Your task to perform on an android device: change the clock style Image 0: 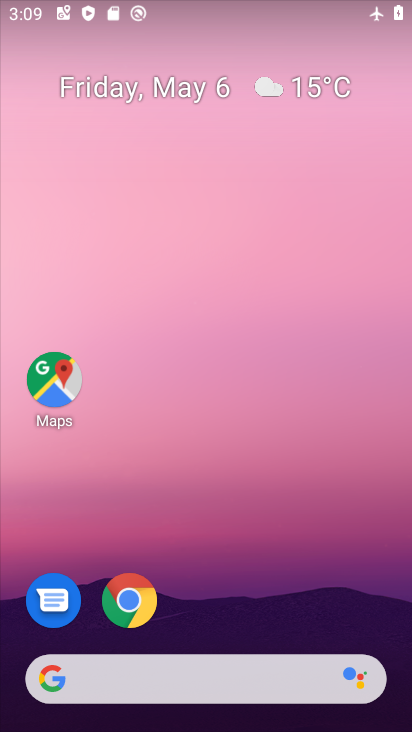
Step 0: drag from (380, 607) to (297, 3)
Your task to perform on an android device: change the clock style Image 1: 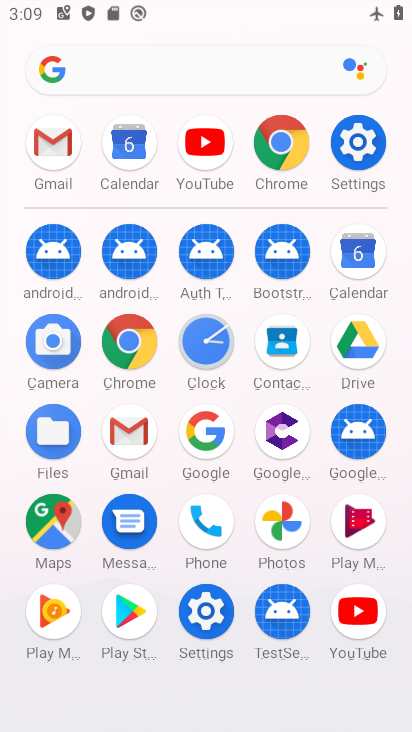
Step 1: drag from (17, 549) to (6, 233)
Your task to perform on an android device: change the clock style Image 2: 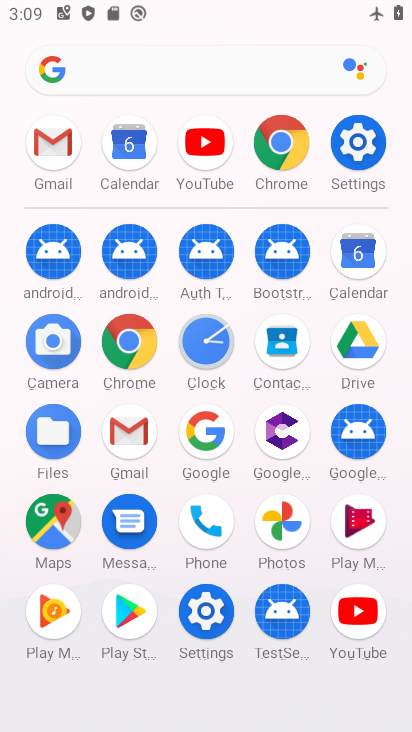
Step 2: click (204, 336)
Your task to perform on an android device: change the clock style Image 3: 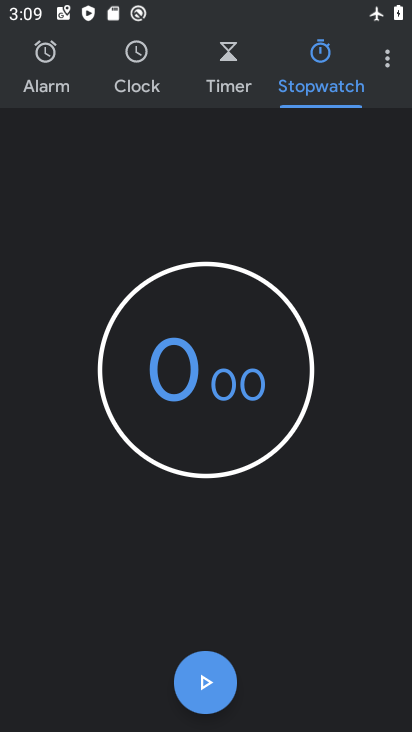
Step 3: drag from (384, 63) to (333, 120)
Your task to perform on an android device: change the clock style Image 4: 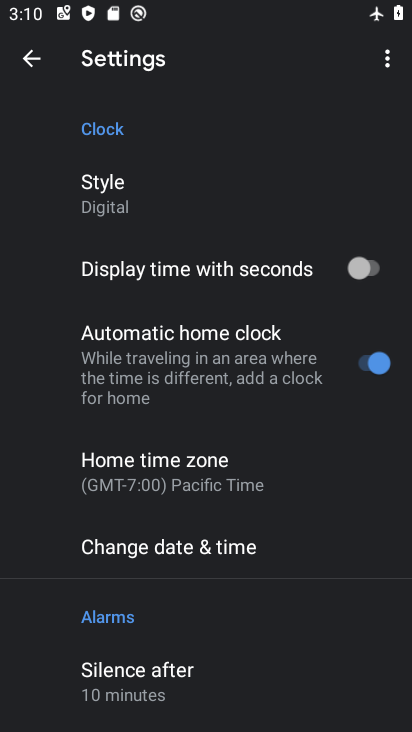
Step 4: click (228, 178)
Your task to perform on an android device: change the clock style Image 5: 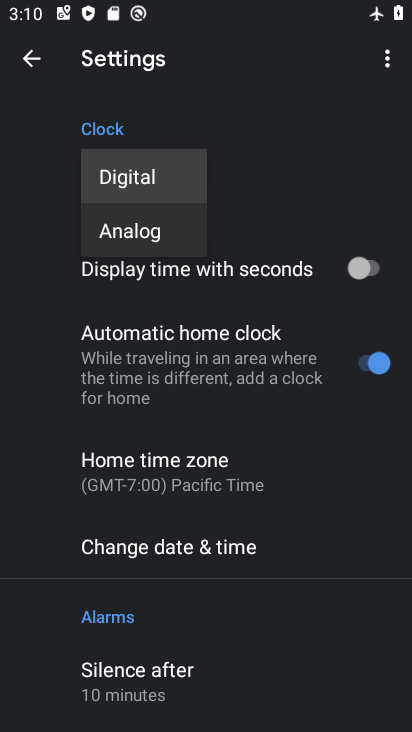
Step 5: click (165, 179)
Your task to perform on an android device: change the clock style Image 6: 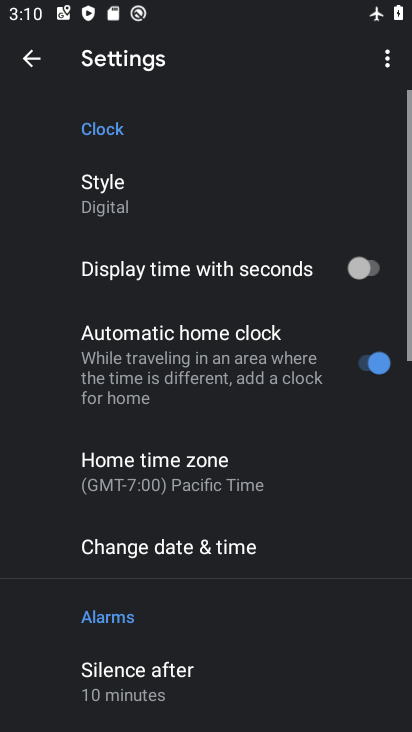
Step 6: click (143, 203)
Your task to perform on an android device: change the clock style Image 7: 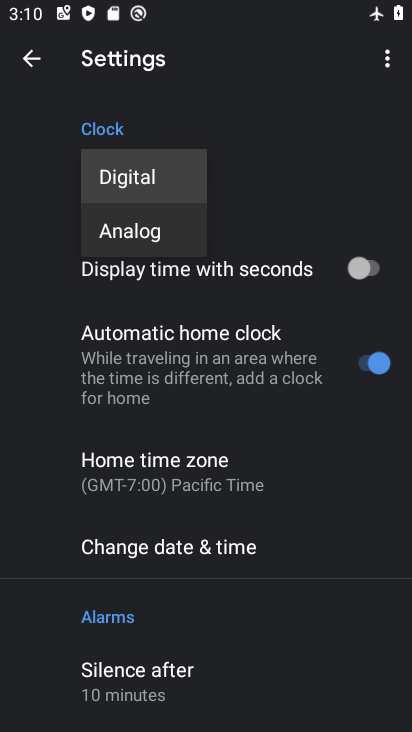
Step 7: click (134, 229)
Your task to perform on an android device: change the clock style Image 8: 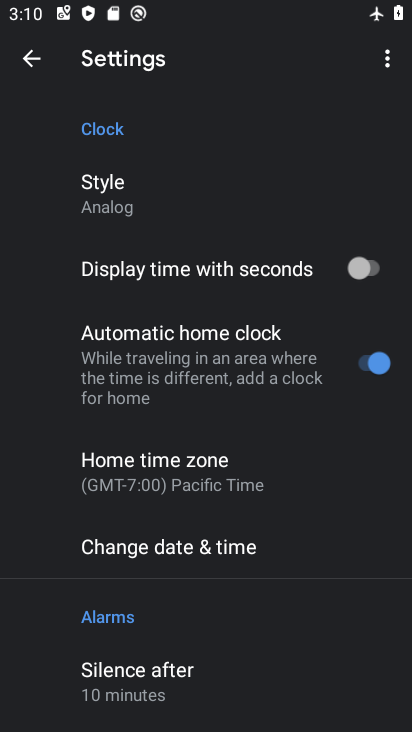
Step 8: task complete